Your task to perform on an android device: Open the calendar app, open the side menu, and click the "Day" option Image 0: 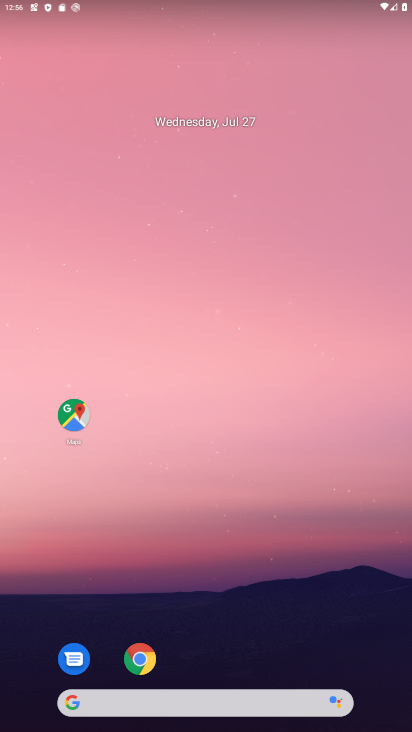
Step 0: drag from (266, 659) to (268, 302)
Your task to perform on an android device: Open the calendar app, open the side menu, and click the "Day" option Image 1: 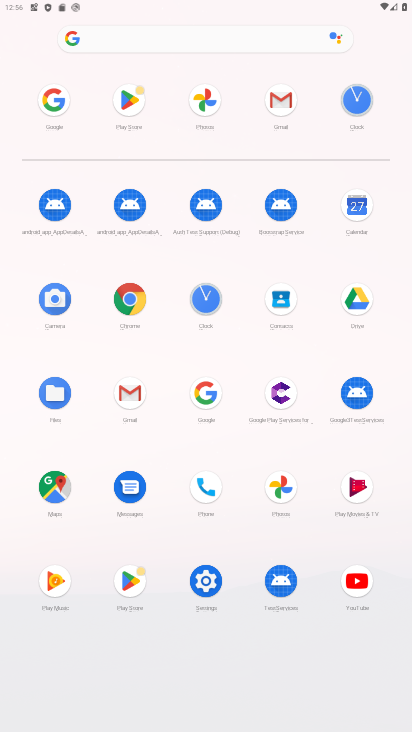
Step 1: click (350, 215)
Your task to perform on an android device: Open the calendar app, open the side menu, and click the "Day" option Image 2: 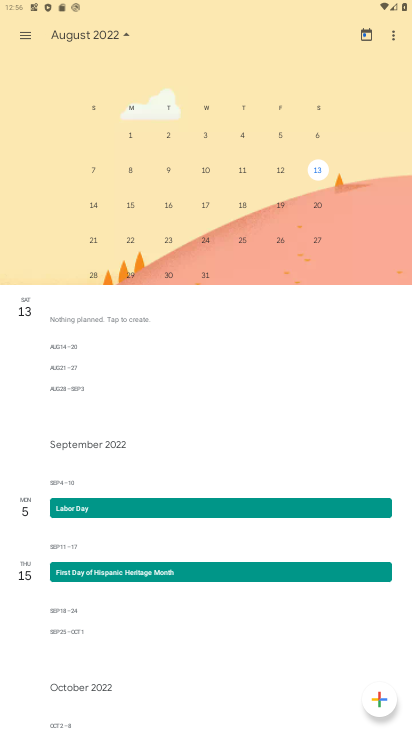
Step 2: click (26, 29)
Your task to perform on an android device: Open the calendar app, open the side menu, and click the "Day" option Image 3: 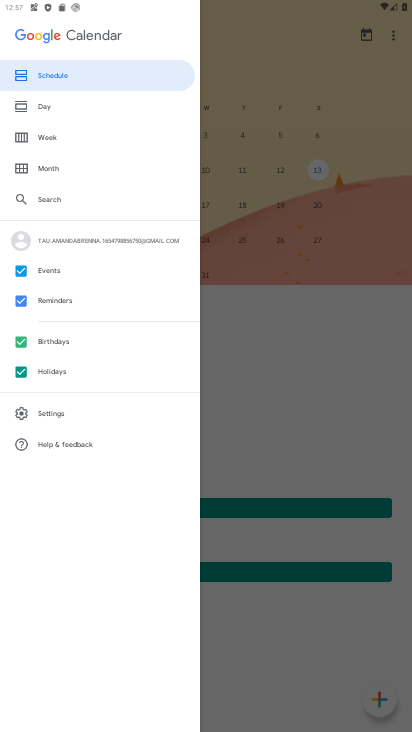
Step 3: click (42, 103)
Your task to perform on an android device: Open the calendar app, open the side menu, and click the "Day" option Image 4: 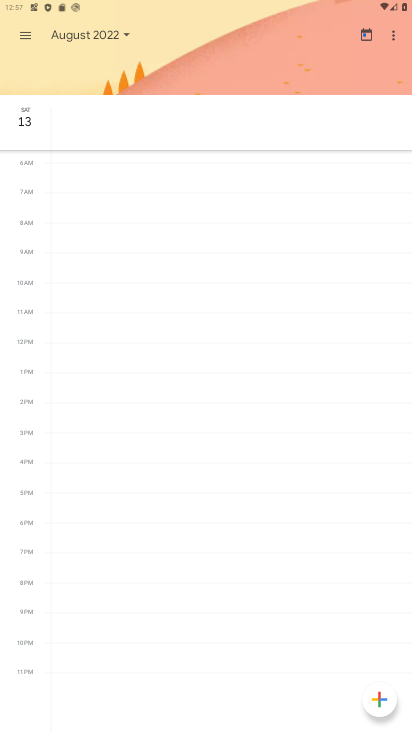
Step 4: task complete